Your task to perform on an android device: Open the stopwatch Image 0: 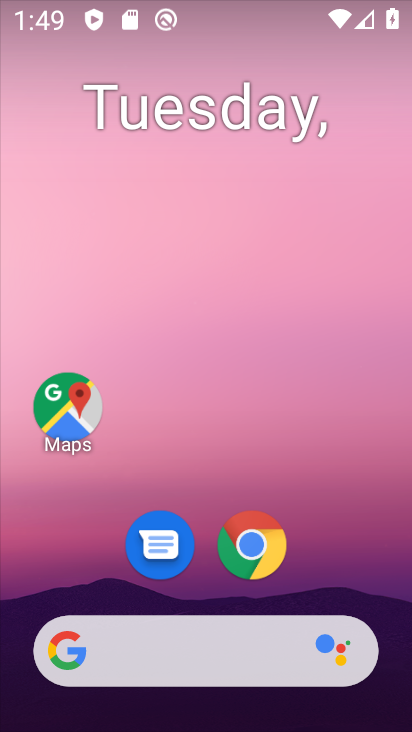
Step 0: drag from (336, 522) to (294, 19)
Your task to perform on an android device: Open the stopwatch Image 1: 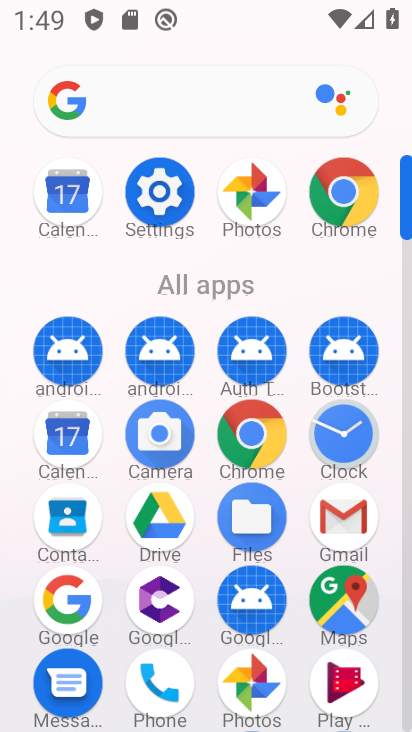
Step 1: drag from (5, 487) to (8, 281)
Your task to perform on an android device: Open the stopwatch Image 2: 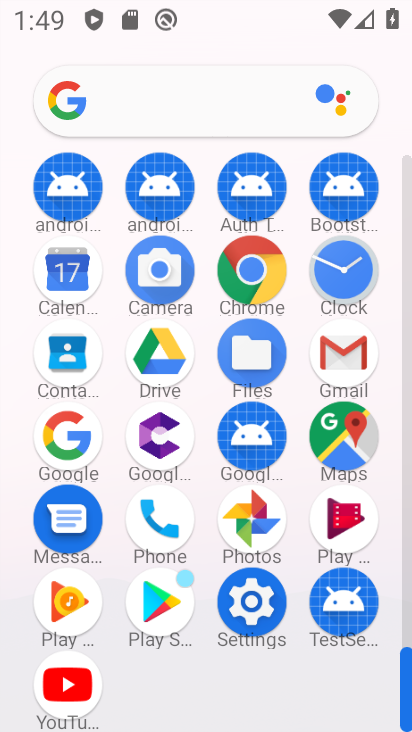
Step 2: click (345, 274)
Your task to perform on an android device: Open the stopwatch Image 3: 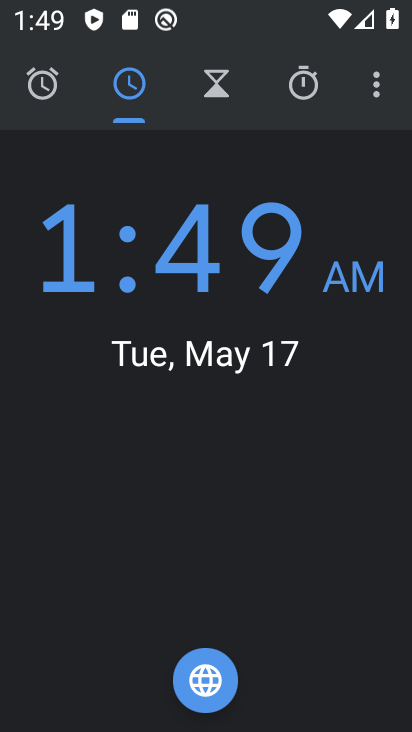
Step 3: click (298, 95)
Your task to perform on an android device: Open the stopwatch Image 4: 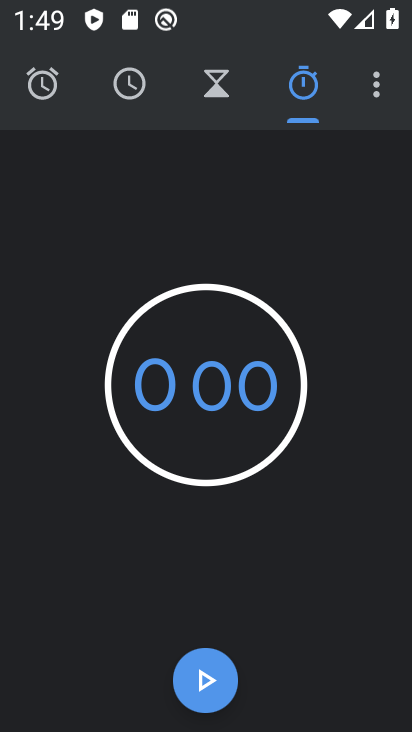
Step 4: task complete